Your task to perform on an android device: Turn on the flashlight Image 0: 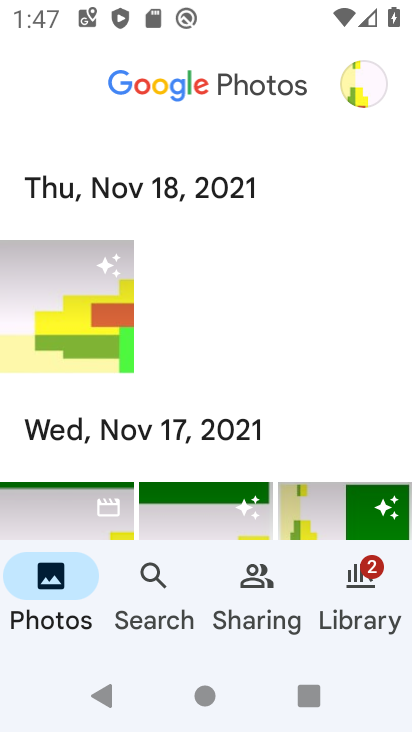
Step 0: press home button
Your task to perform on an android device: Turn on the flashlight Image 1: 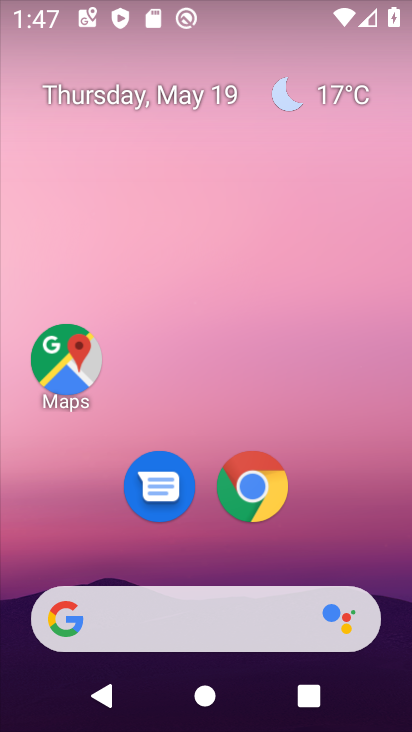
Step 1: task complete